Your task to perform on an android device: turn on priority inbox in the gmail app Image 0: 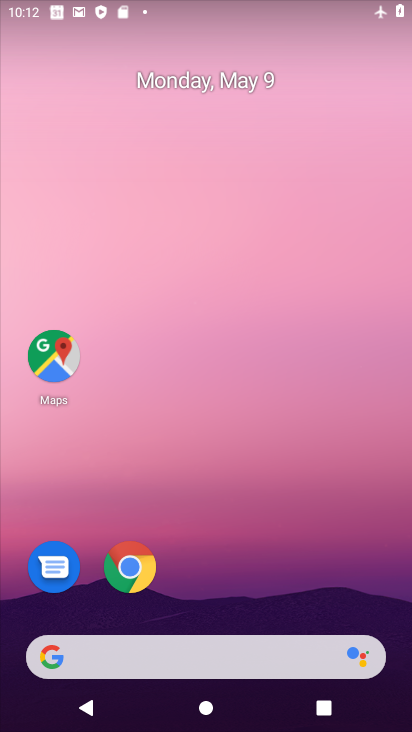
Step 0: drag from (201, 601) to (235, 53)
Your task to perform on an android device: turn on priority inbox in the gmail app Image 1: 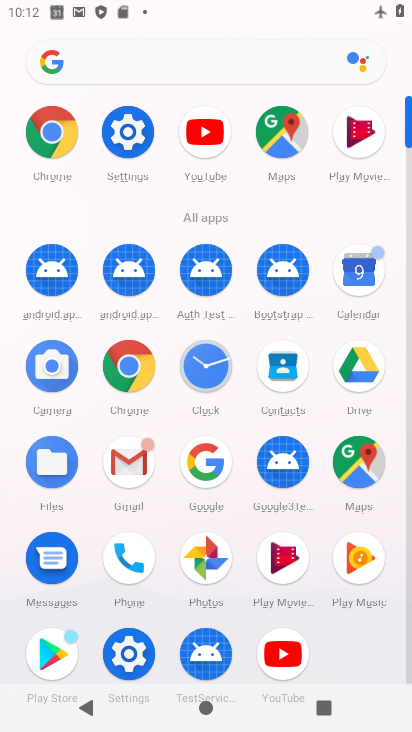
Step 1: click (118, 474)
Your task to perform on an android device: turn on priority inbox in the gmail app Image 2: 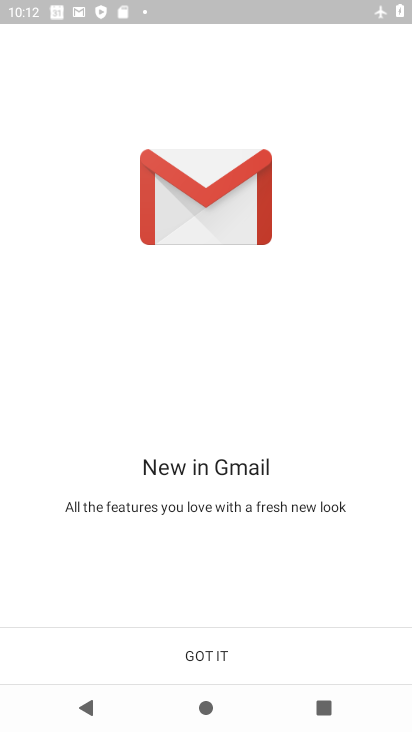
Step 2: click (185, 665)
Your task to perform on an android device: turn on priority inbox in the gmail app Image 3: 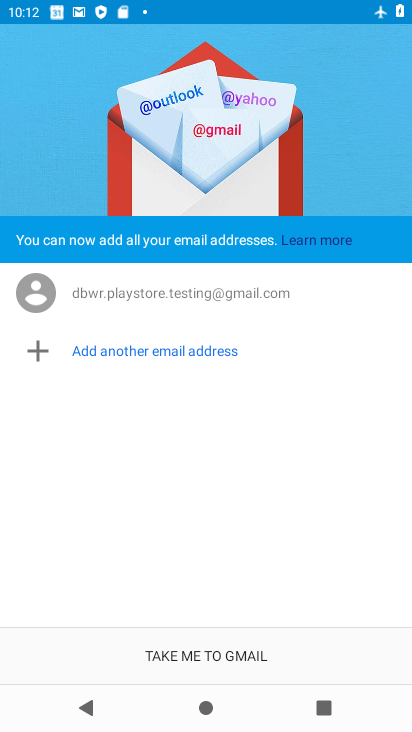
Step 3: click (185, 665)
Your task to perform on an android device: turn on priority inbox in the gmail app Image 4: 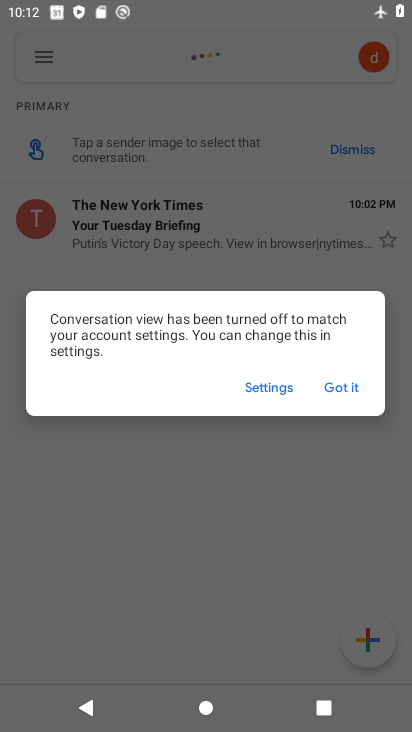
Step 4: click (331, 386)
Your task to perform on an android device: turn on priority inbox in the gmail app Image 5: 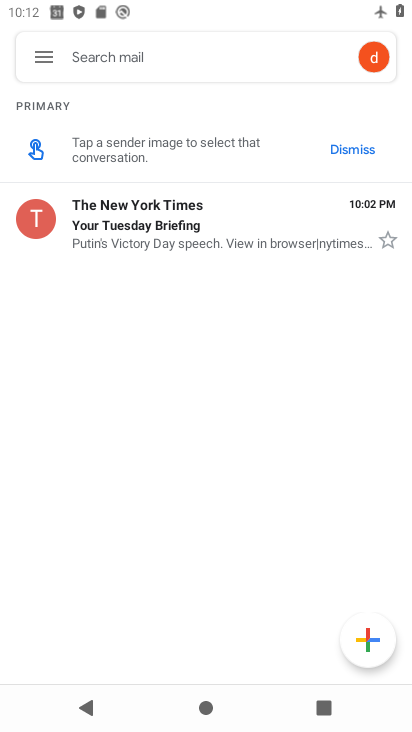
Step 5: click (50, 52)
Your task to perform on an android device: turn on priority inbox in the gmail app Image 6: 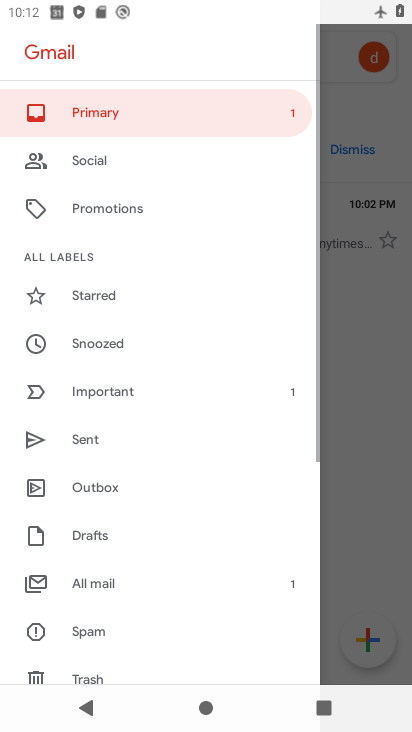
Step 6: drag from (143, 651) to (177, 326)
Your task to perform on an android device: turn on priority inbox in the gmail app Image 7: 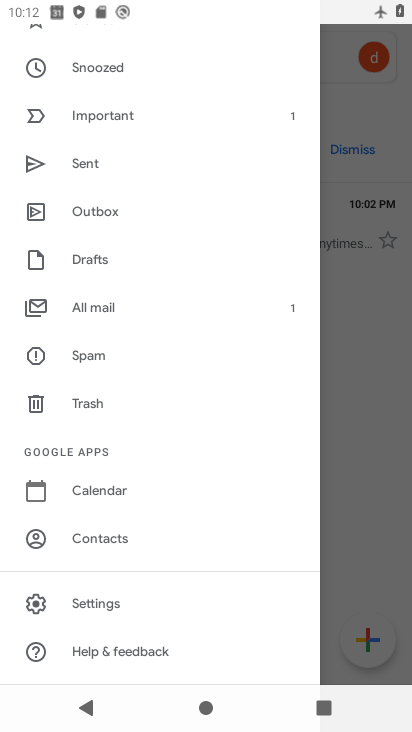
Step 7: click (127, 591)
Your task to perform on an android device: turn on priority inbox in the gmail app Image 8: 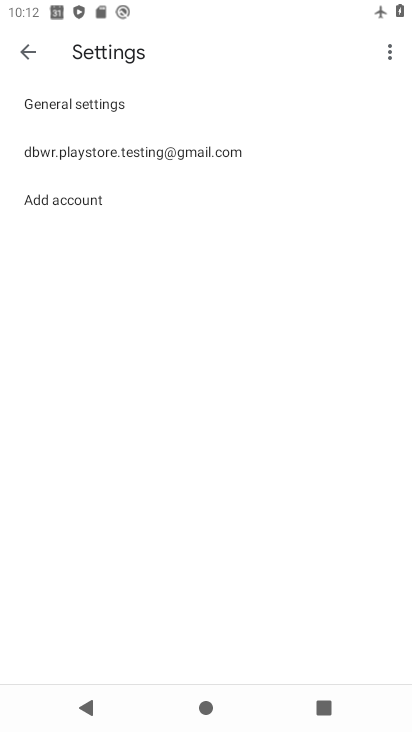
Step 8: click (164, 156)
Your task to perform on an android device: turn on priority inbox in the gmail app Image 9: 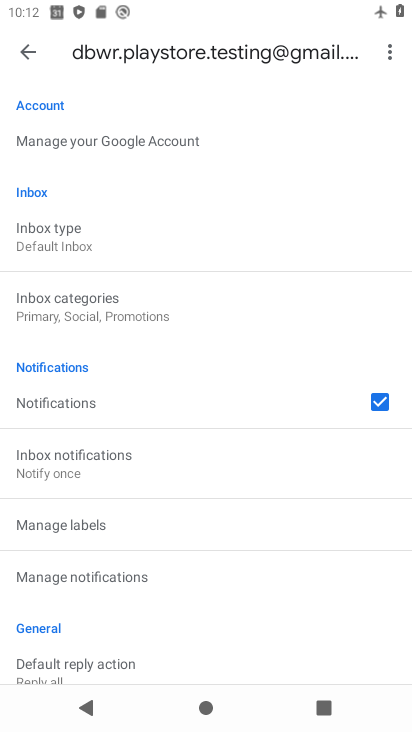
Step 9: click (103, 241)
Your task to perform on an android device: turn on priority inbox in the gmail app Image 10: 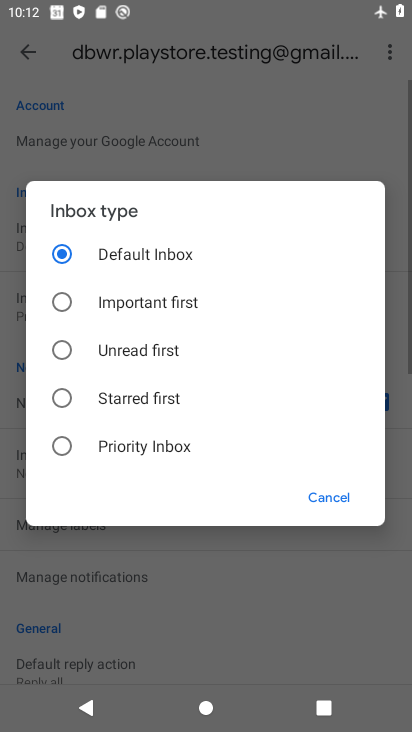
Step 10: click (108, 450)
Your task to perform on an android device: turn on priority inbox in the gmail app Image 11: 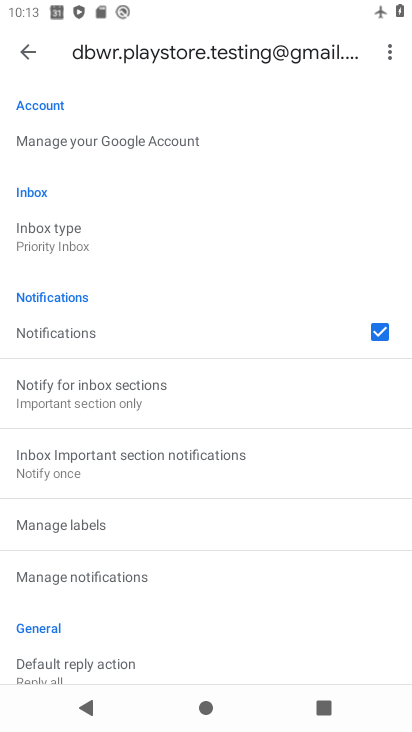
Step 11: task complete